Your task to perform on an android device: check out phone information Image 0: 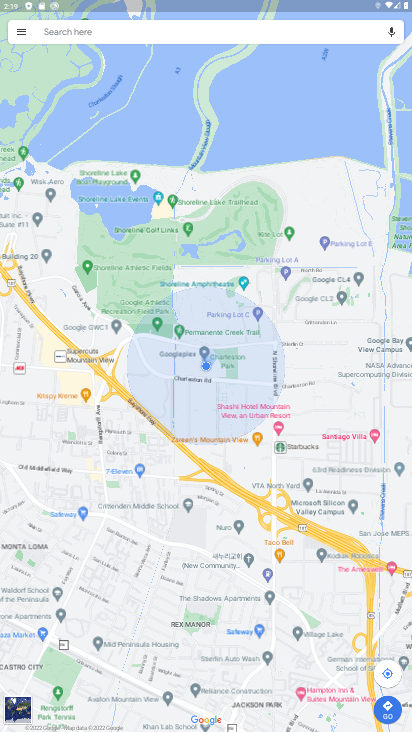
Step 0: press home button
Your task to perform on an android device: check out phone information Image 1: 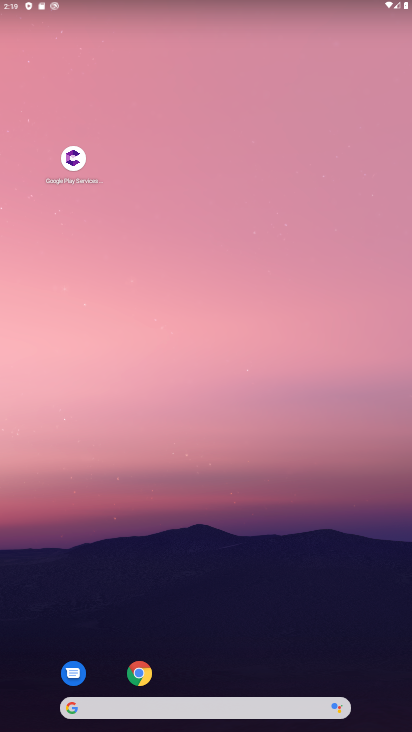
Step 1: drag from (249, 650) to (318, 8)
Your task to perform on an android device: check out phone information Image 2: 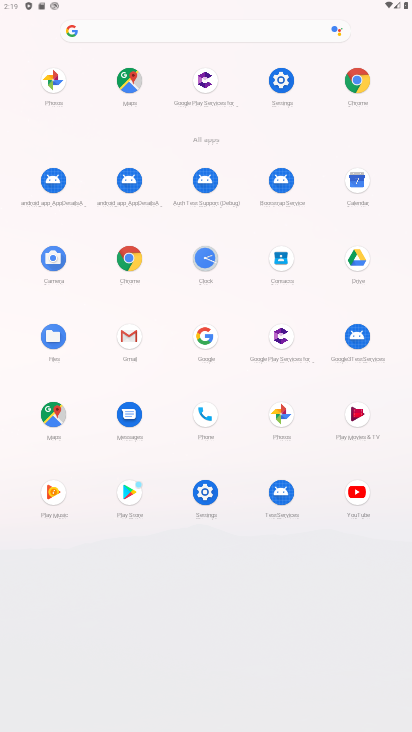
Step 2: click (207, 414)
Your task to perform on an android device: check out phone information Image 3: 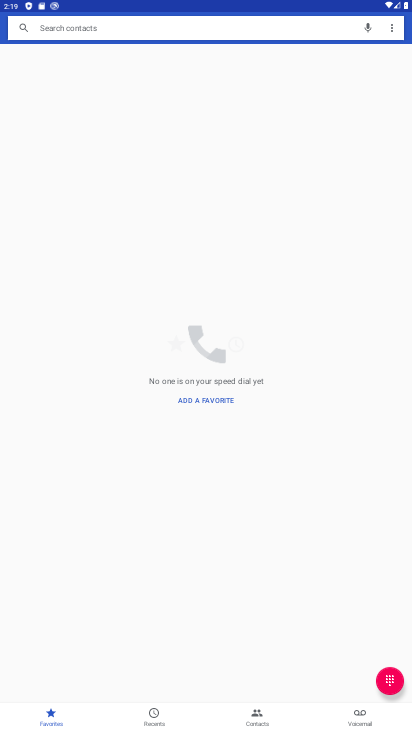
Step 3: press home button
Your task to perform on an android device: check out phone information Image 4: 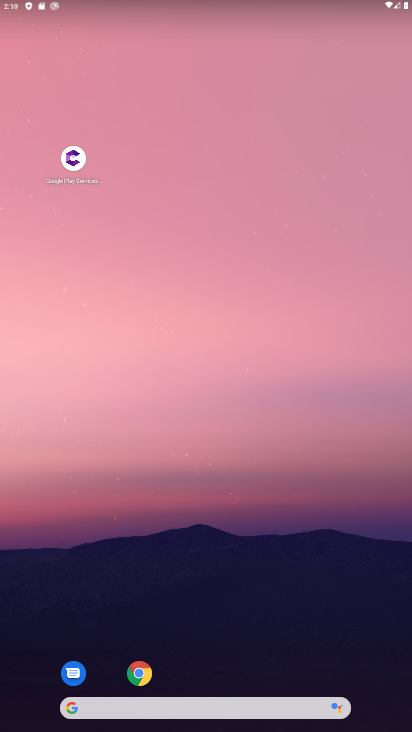
Step 4: drag from (215, 642) to (241, 294)
Your task to perform on an android device: check out phone information Image 5: 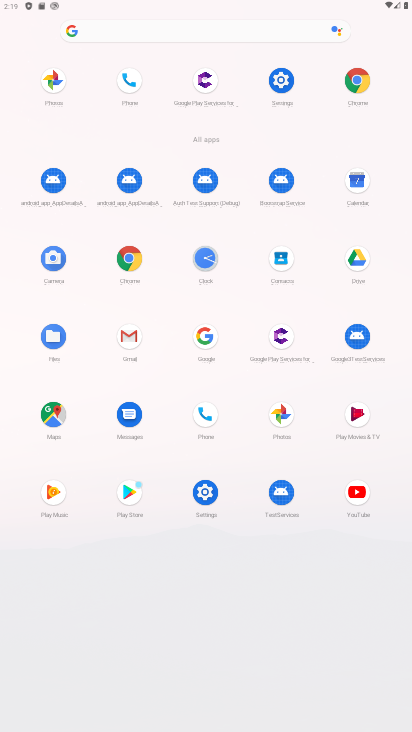
Step 5: click (203, 411)
Your task to perform on an android device: check out phone information Image 6: 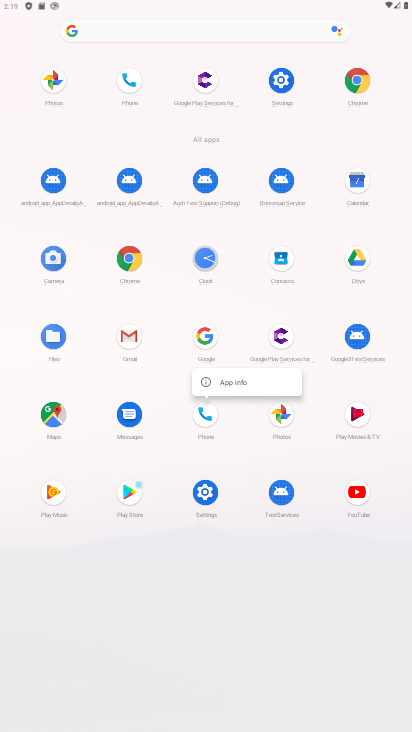
Step 6: click (235, 377)
Your task to perform on an android device: check out phone information Image 7: 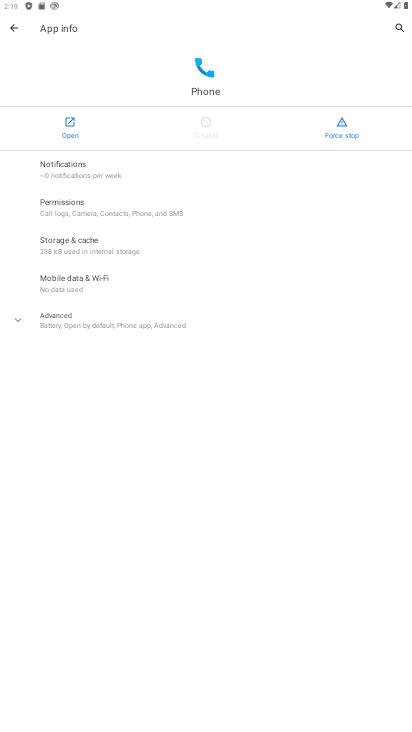
Step 7: click (120, 166)
Your task to perform on an android device: check out phone information Image 8: 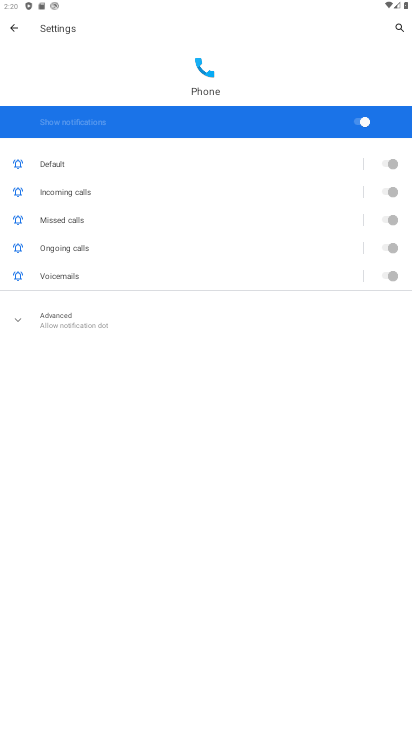
Step 8: task complete